Your task to perform on an android device: delete browsing data in the chrome app Image 0: 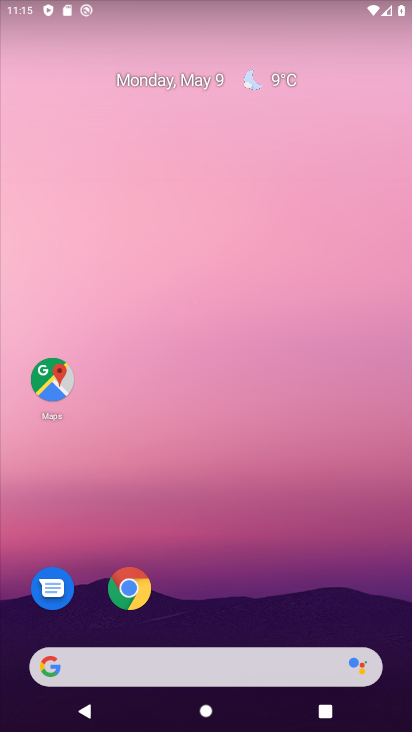
Step 0: drag from (235, 554) to (218, 93)
Your task to perform on an android device: delete browsing data in the chrome app Image 1: 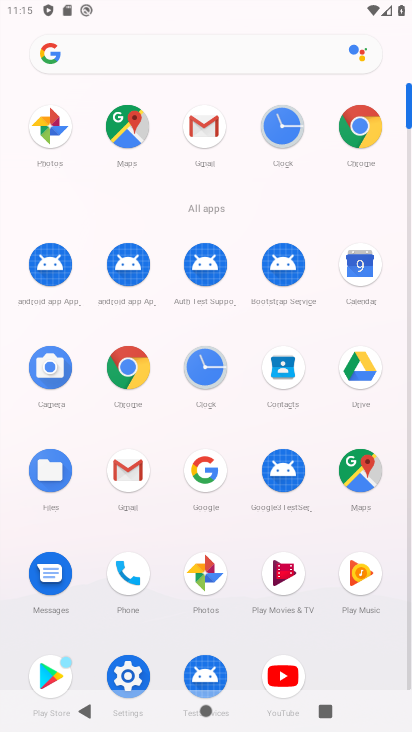
Step 1: click (355, 117)
Your task to perform on an android device: delete browsing data in the chrome app Image 2: 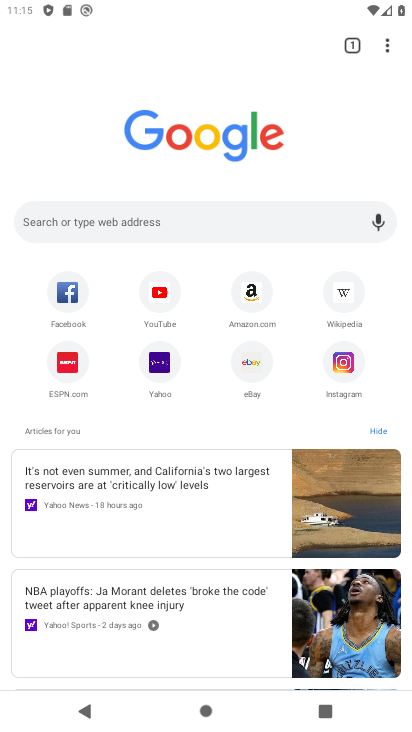
Step 2: click (379, 45)
Your task to perform on an android device: delete browsing data in the chrome app Image 3: 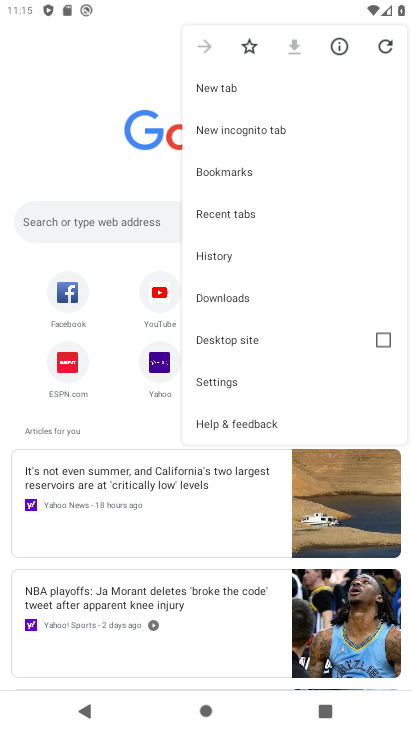
Step 3: click (251, 380)
Your task to perform on an android device: delete browsing data in the chrome app Image 4: 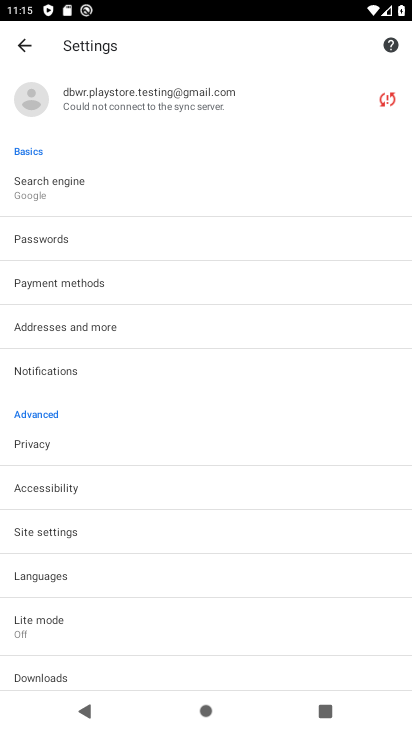
Step 4: press back button
Your task to perform on an android device: delete browsing data in the chrome app Image 5: 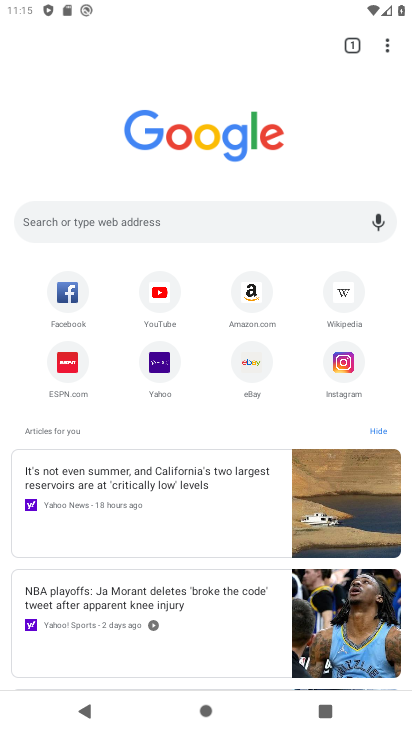
Step 5: click (381, 43)
Your task to perform on an android device: delete browsing data in the chrome app Image 6: 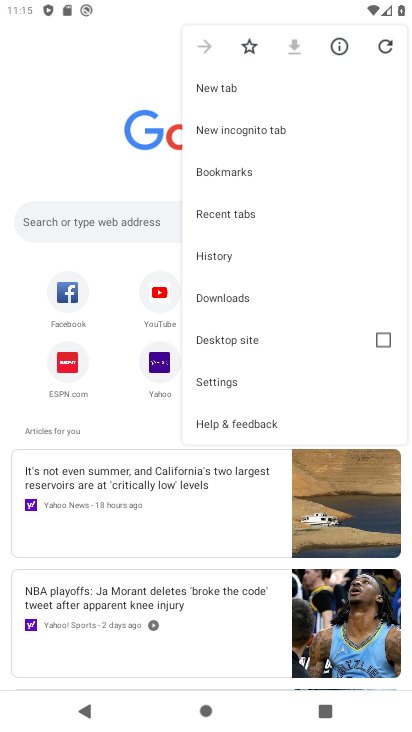
Step 6: click (210, 249)
Your task to perform on an android device: delete browsing data in the chrome app Image 7: 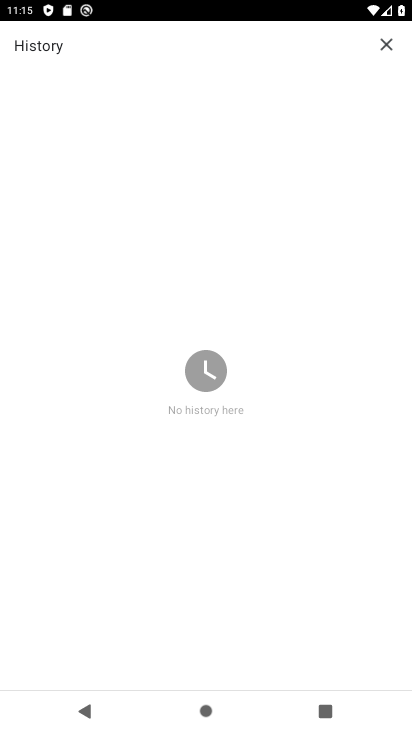
Step 7: task complete